Your task to perform on an android device: add a label to a message in the gmail app Image 0: 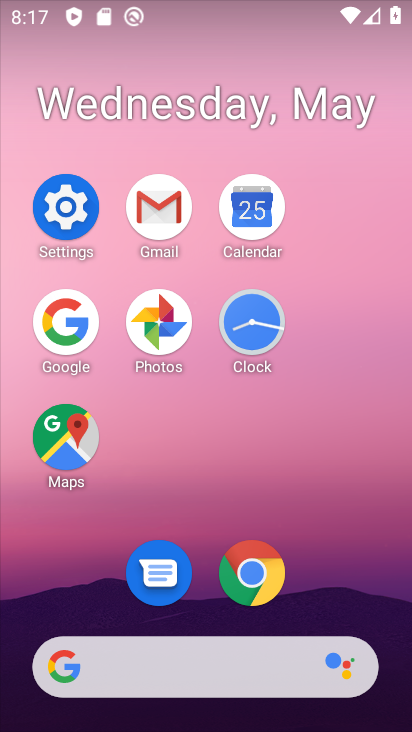
Step 0: click (194, 206)
Your task to perform on an android device: add a label to a message in the gmail app Image 1: 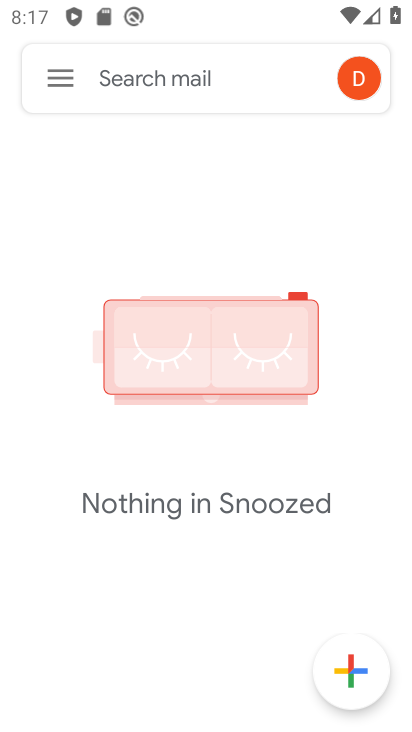
Step 1: click (79, 80)
Your task to perform on an android device: add a label to a message in the gmail app Image 2: 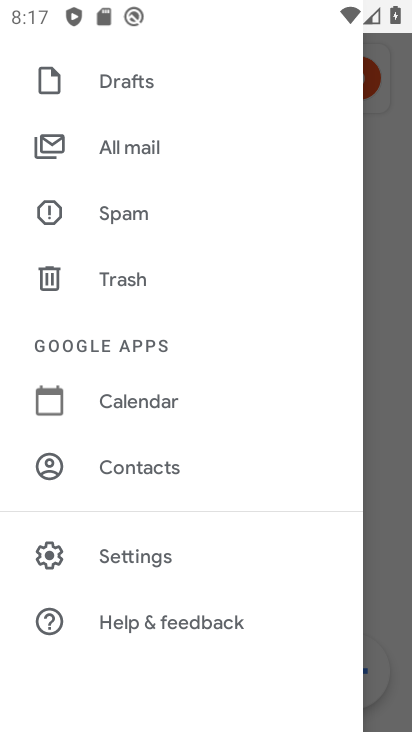
Step 2: drag from (243, 573) to (220, 165)
Your task to perform on an android device: add a label to a message in the gmail app Image 3: 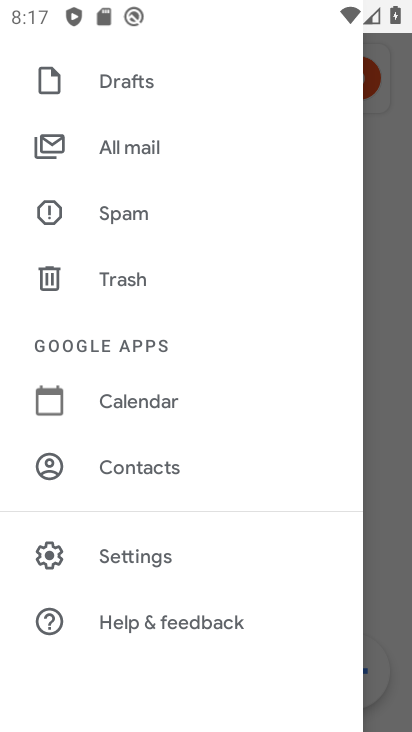
Step 3: click (178, 158)
Your task to perform on an android device: add a label to a message in the gmail app Image 4: 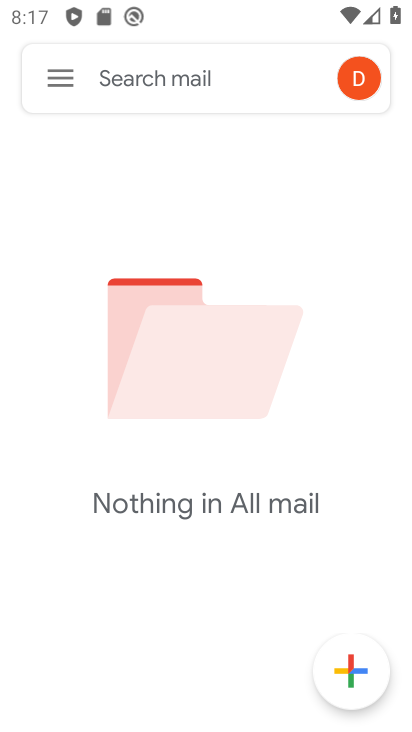
Step 4: task complete